Your task to perform on an android device: turn off notifications settings in the gmail app Image 0: 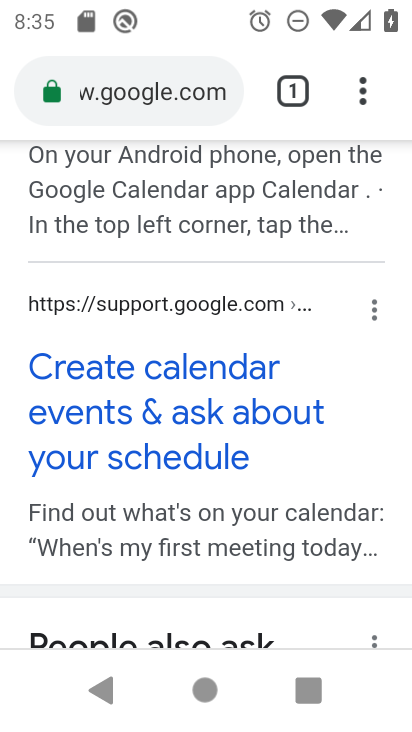
Step 0: press home button
Your task to perform on an android device: turn off notifications settings in the gmail app Image 1: 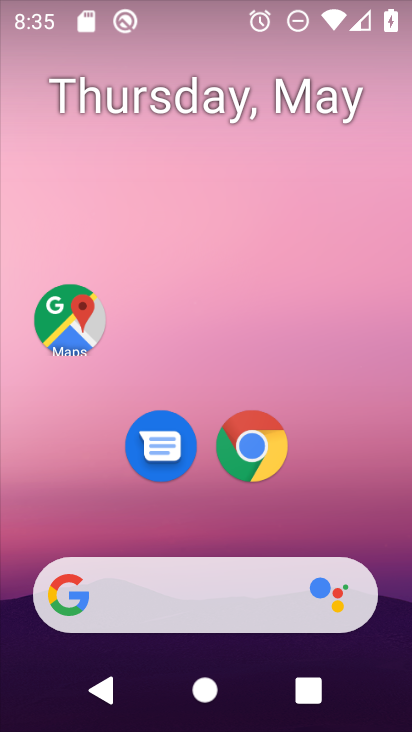
Step 1: drag from (397, 505) to (333, 60)
Your task to perform on an android device: turn off notifications settings in the gmail app Image 2: 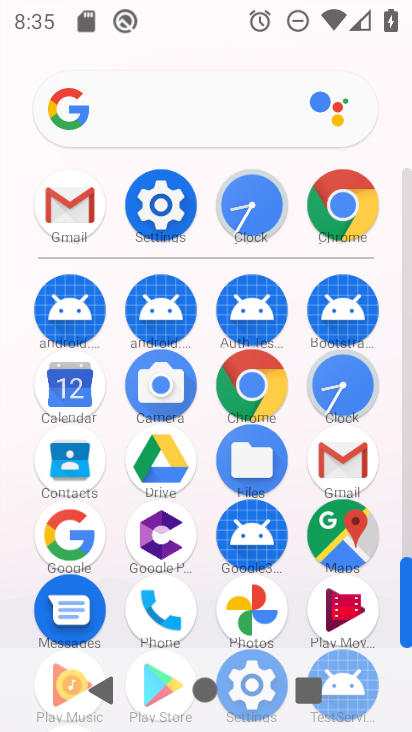
Step 2: click (341, 473)
Your task to perform on an android device: turn off notifications settings in the gmail app Image 3: 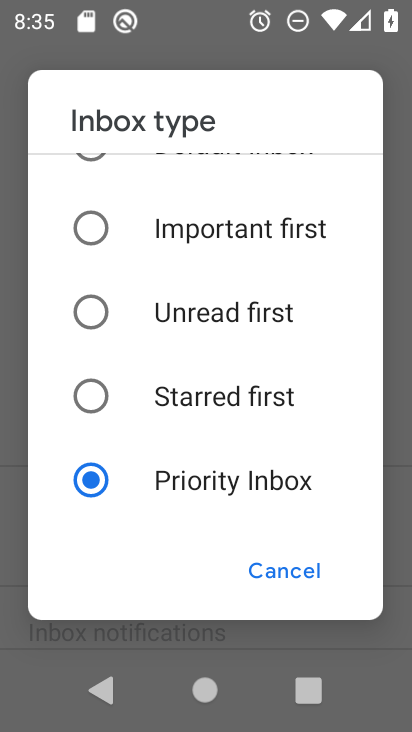
Step 3: click (292, 577)
Your task to perform on an android device: turn off notifications settings in the gmail app Image 4: 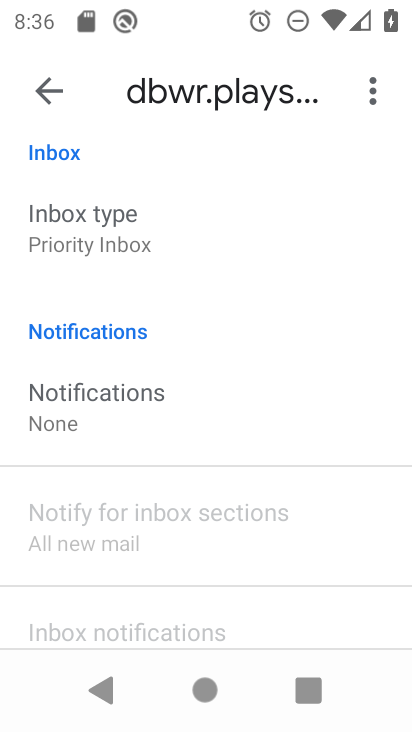
Step 4: drag from (302, 582) to (309, 322)
Your task to perform on an android device: turn off notifications settings in the gmail app Image 5: 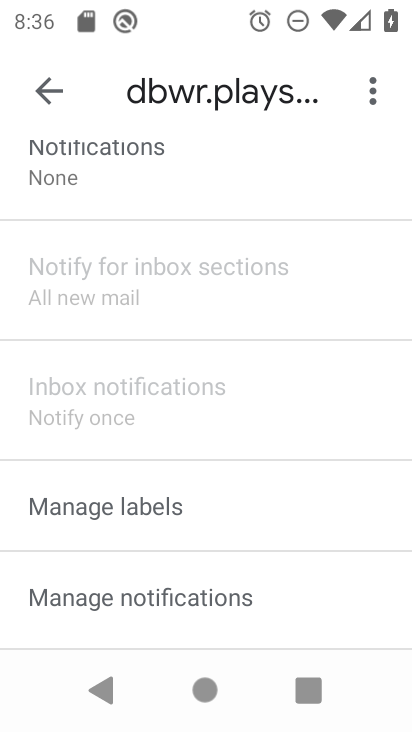
Step 5: drag from (254, 200) to (234, 432)
Your task to perform on an android device: turn off notifications settings in the gmail app Image 6: 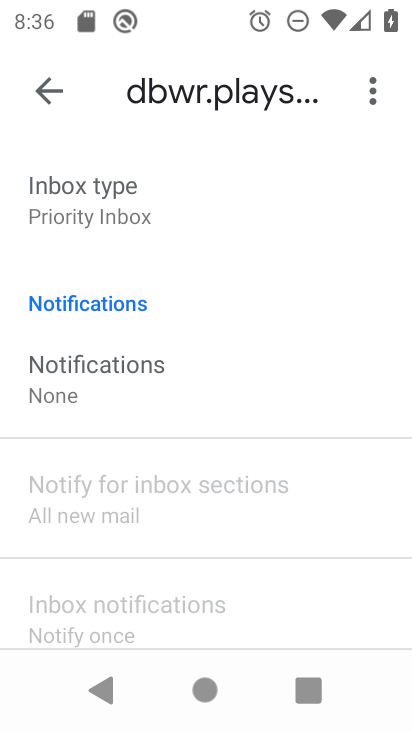
Step 6: click (152, 388)
Your task to perform on an android device: turn off notifications settings in the gmail app Image 7: 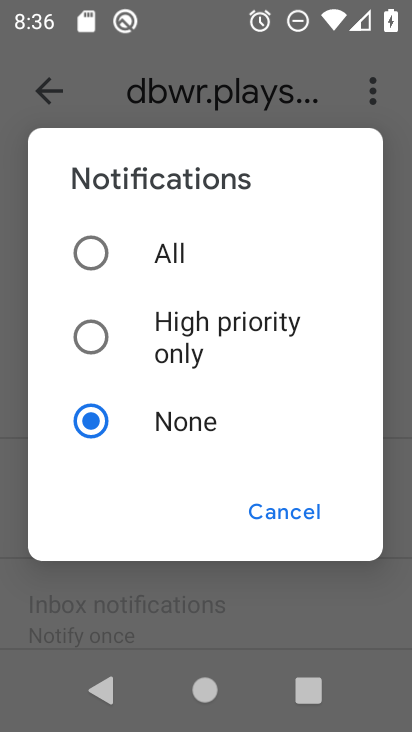
Step 7: task complete